Your task to perform on an android device: Open Amazon Image 0: 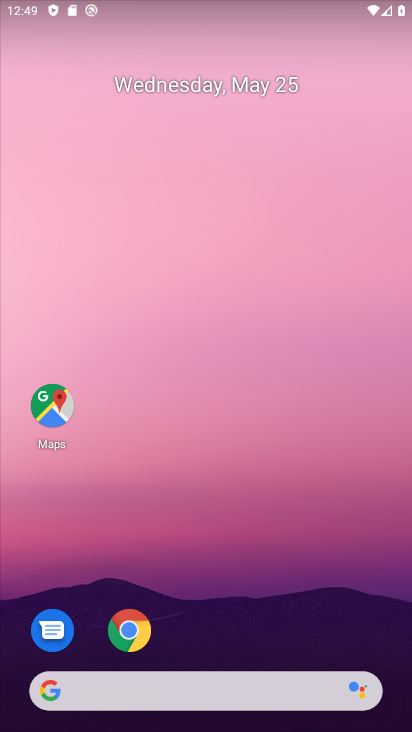
Step 0: click (125, 622)
Your task to perform on an android device: Open Amazon Image 1: 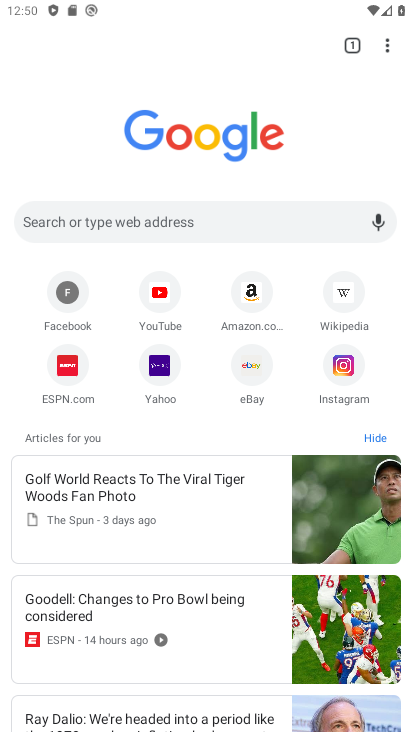
Step 1: click (246, 290)
Your task to perform on an android device: Open Amazon Image 2: 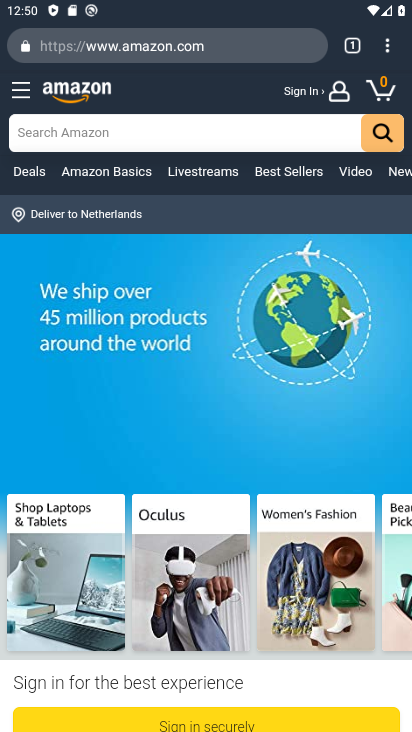
Step 2: task complete